Your task to perform on an android device: add a label to a message in the gmail app Image 0: 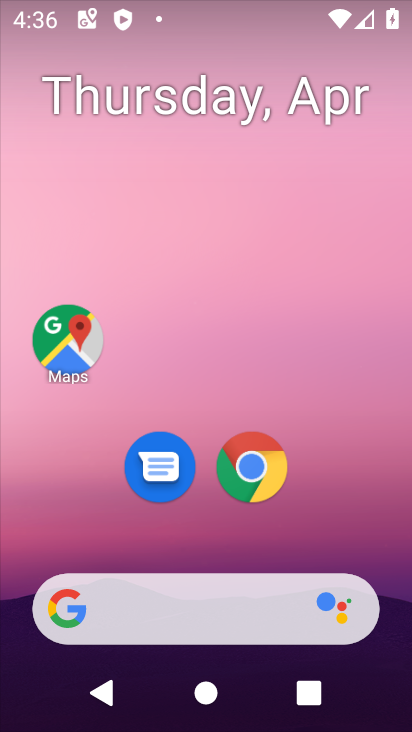
Step 0: click (366, 170)
Your task to perform on an android device: add a label to a message in the gmail app Image 1: 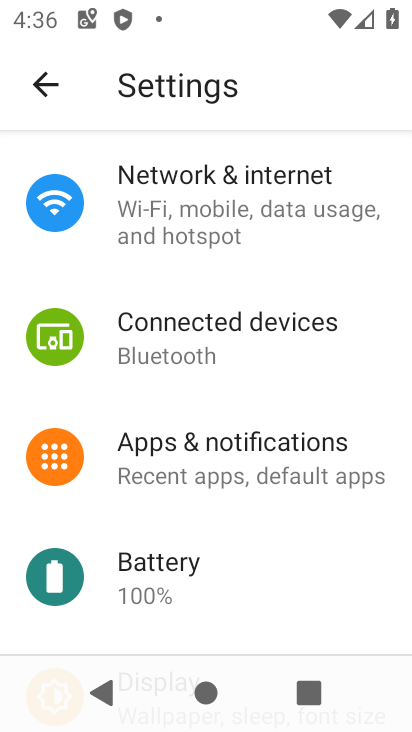
Step 1: press home button
Your task to perform on an android device: add a label to a message in the gmail app Image 2: 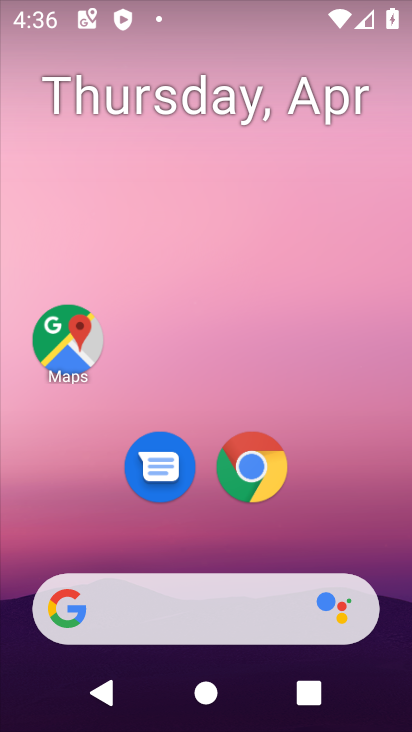
Step 2: drag from (195, 539) to (287, 34)
Your task to perform on an android device: add a label to a message in the gmail app Image 3: 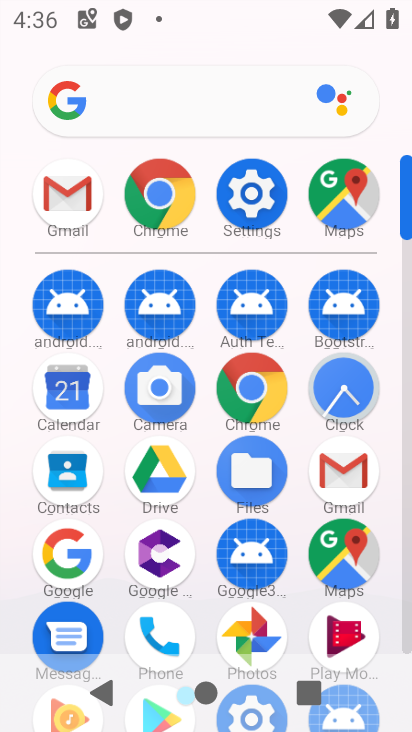
Step 3: click (336, 484)
Your task to perform on an android device: add a label to a message in the gmail app Image 4: 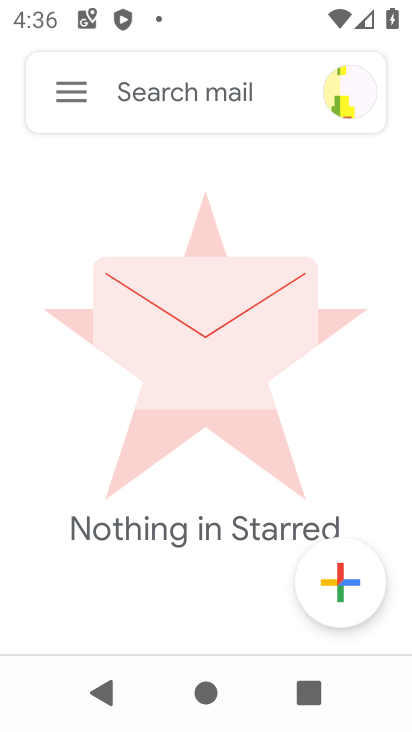
Step 4: click (56, 106)
Your task to perform on an android device: add a label to a message in the gmail app Image 5: 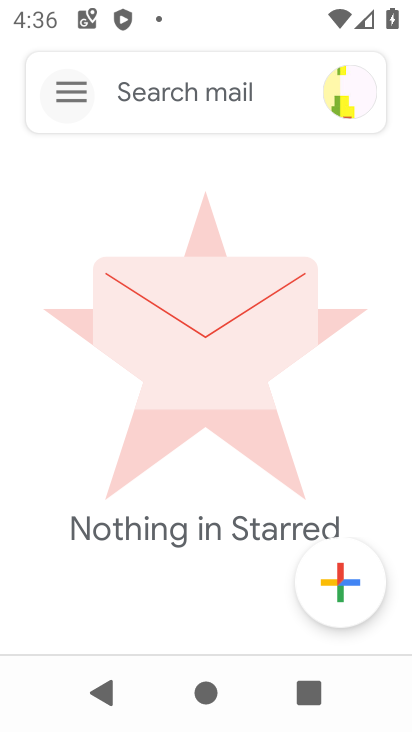
Step 5: click (56, 106)
Your task to perform on an android device: add a label to a message in the gmail app Image 6: 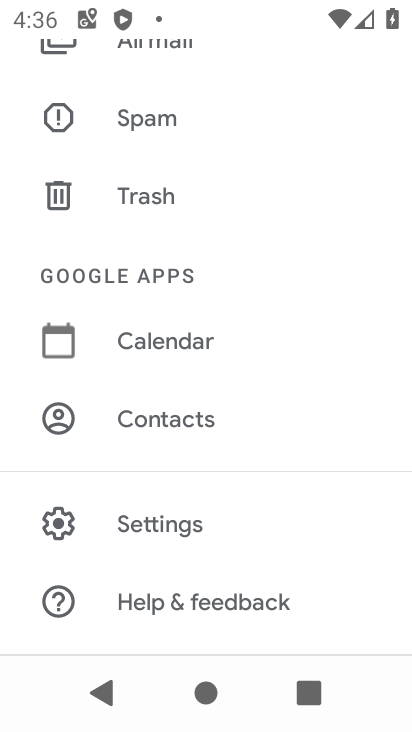
Step 6: drag from (154, 203) to (149, 397)
Your task to perform on an android device: add a label to a message in the gmail app Image 7: 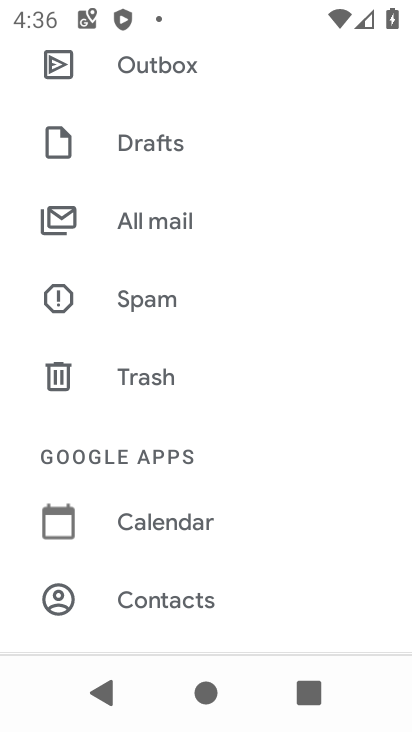
Step 7: click (157, 233)
Your task to perform on an android device: add a label to a message in the gmail app Image 8: 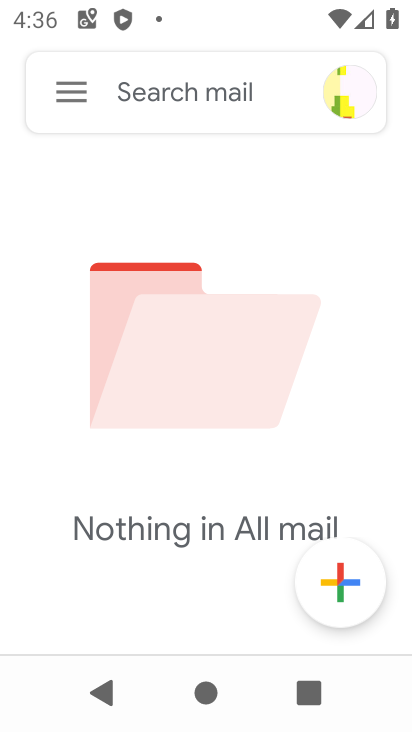
Step 8: task complete